Your task to perform on an android device: Open Reddit.com Image 0: 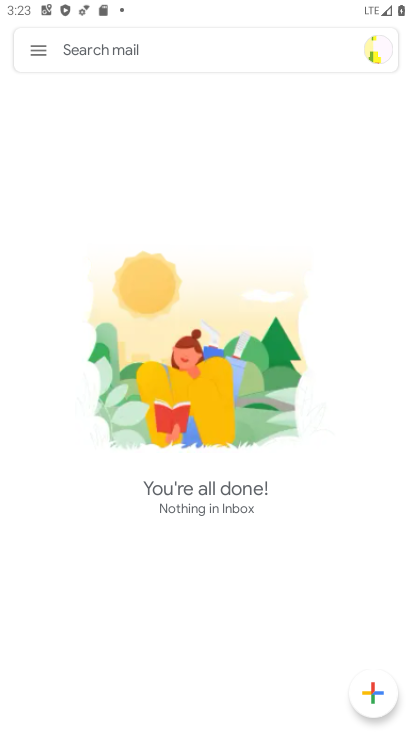
Step 0: press back button
Your task to perform on an android device: Open Reddit.com Image 1: 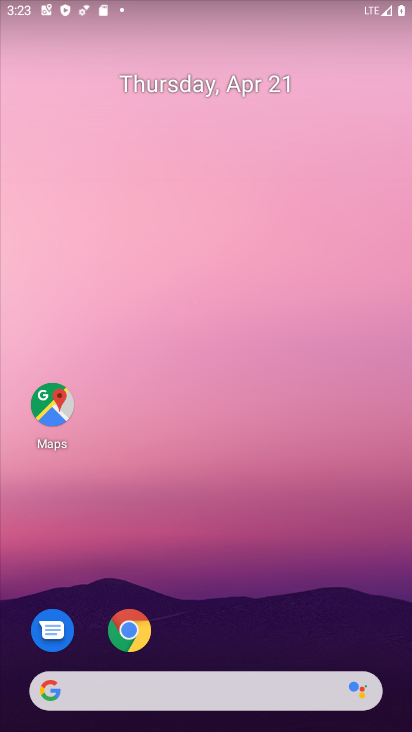
Step 1: click (132, 618)
Your task to perform on an android device: Open Reddit.com Image 2: 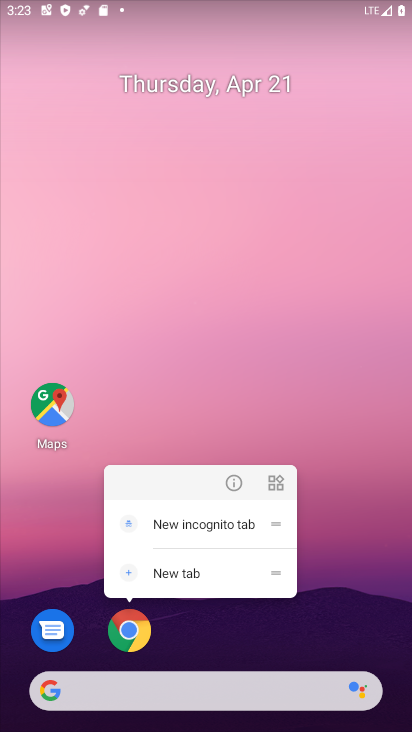
Step 2: click (130, 633)
Your task to perform on an android device: Open Reddit.com Image 3: 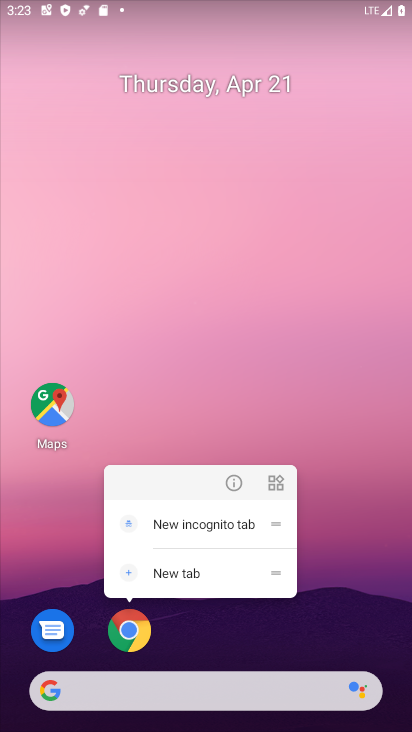
Step 3: click (131, 634)
Your task to perform on an android device: Open Reddit.com Image 4: 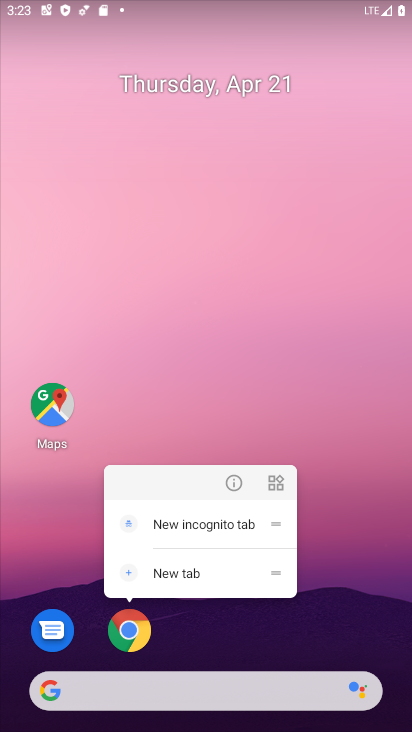
Step 4: click (136, 629)
Your task to perform on an android device: Open Reddit.com Image 5: 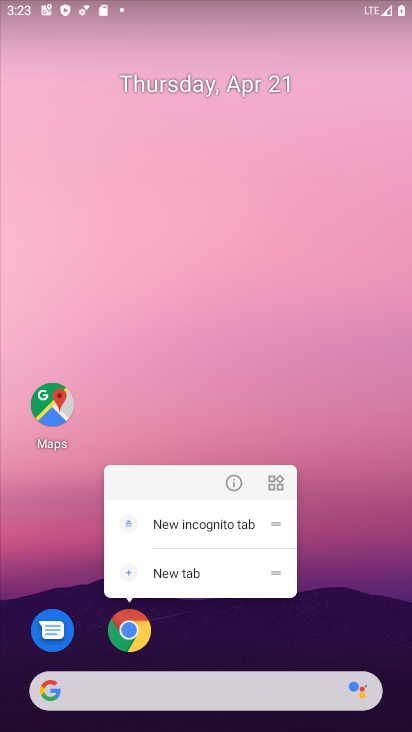
Step 5: click (132, 625)
Your task to perform on an android device: Open Reddit.com Image 6: 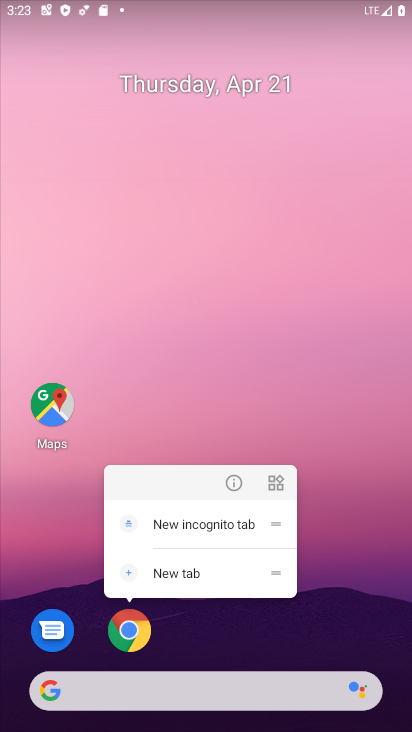
Step 6: click (124, 630)
Your task to perform on an android device: Open Reddit.com Image 7: 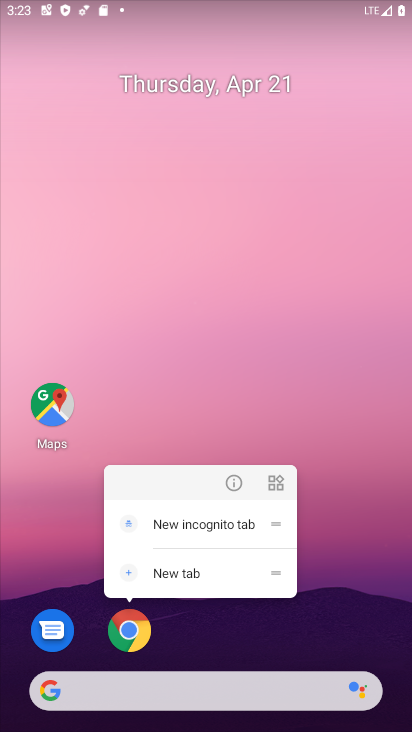
Step 7: click (131, 631)
Your task to perform on an android device: Open Reddit.com Image 8: 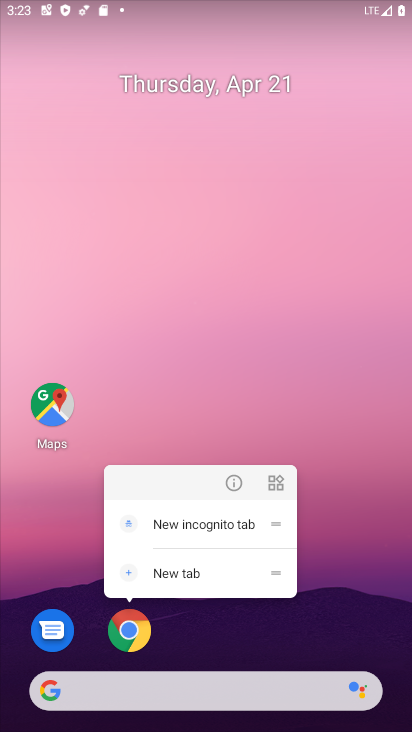
Step 8: click (133, 634)
Your task to perform on an android device: Open Reddit.com Image 9: 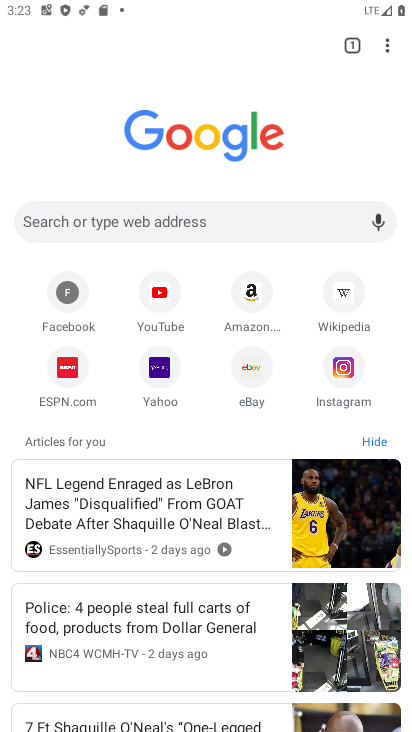
Step 9: click (146, 215)
Your task to perform on an android device: Open Reddit.com Image 10: 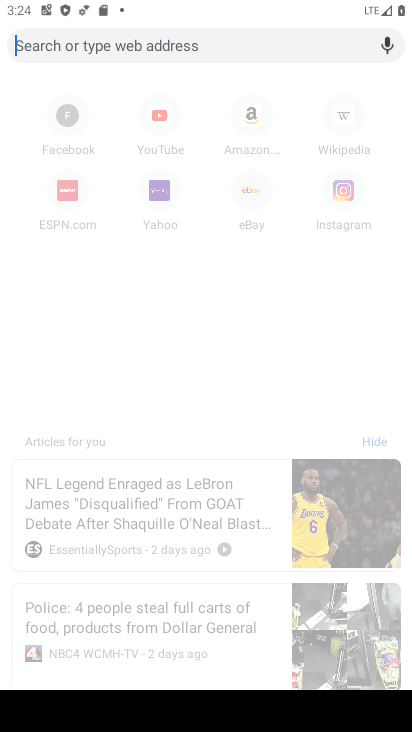
Step 10: type "reddit.com"
Your task to perform on an android device: Open Reddit.com Image 11: 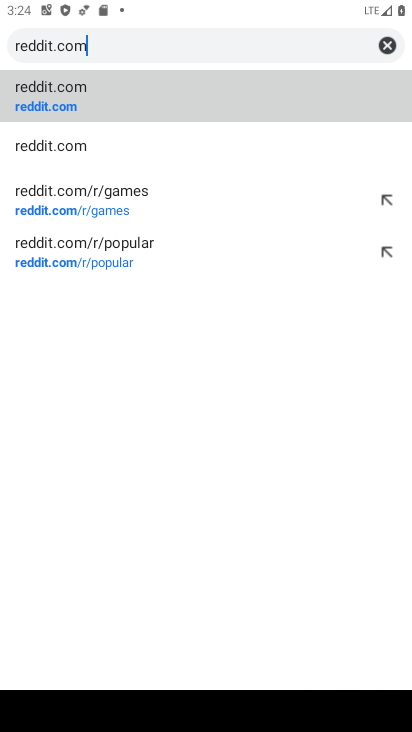
Step 11: click (125, 95)
Your task to perform on an android device: Open Reddit.com Image 12: 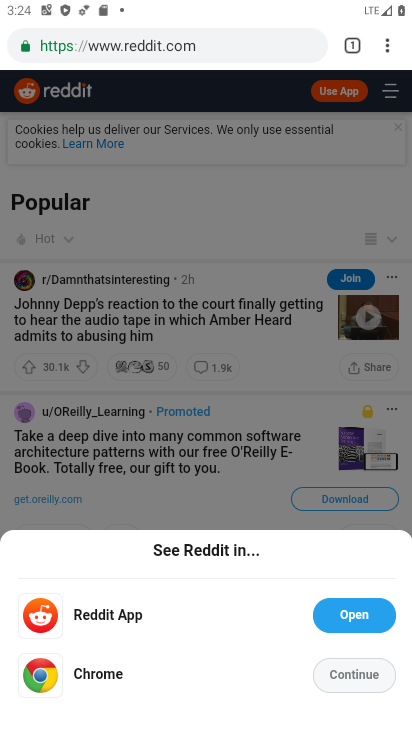
Step 12: task complete